Your task to perform on an android device: change alarm snooze length Image 0: 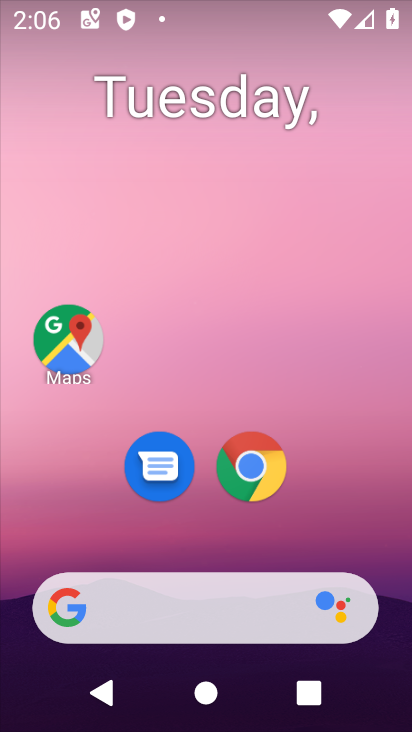
Step 0: task complete